Your task to perform on an android device: turn on airplane mode Image 0: 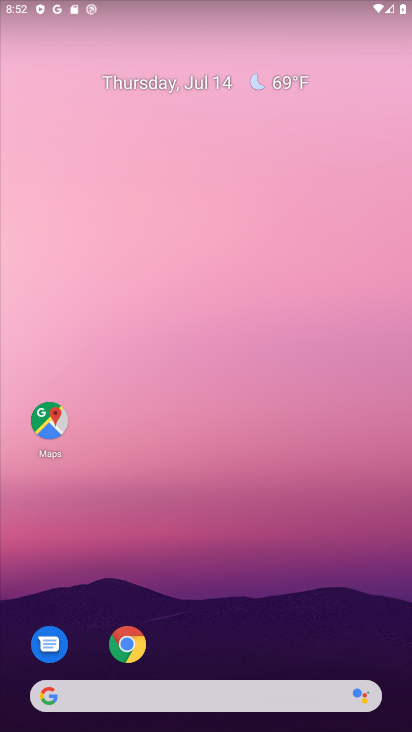
Step 0: drag from (246, 17) to (161, 689)
Your task to perform on an android device: turn on airplane mode Image 1: 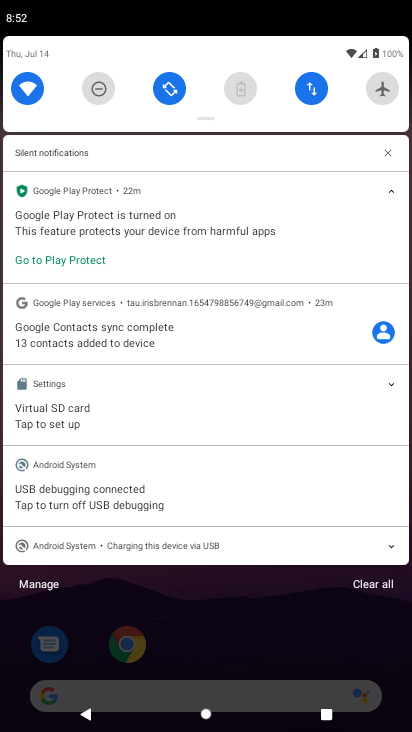
Step 1: click (386, 93)
Your task to perform on an android device: turn on airplane mode Image 2: 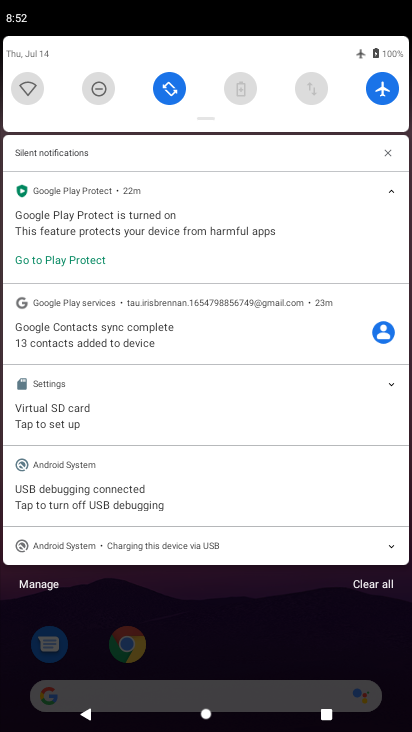
Step 2: task complete